Your task to perform on an android device: Go to battery settings Image 0: 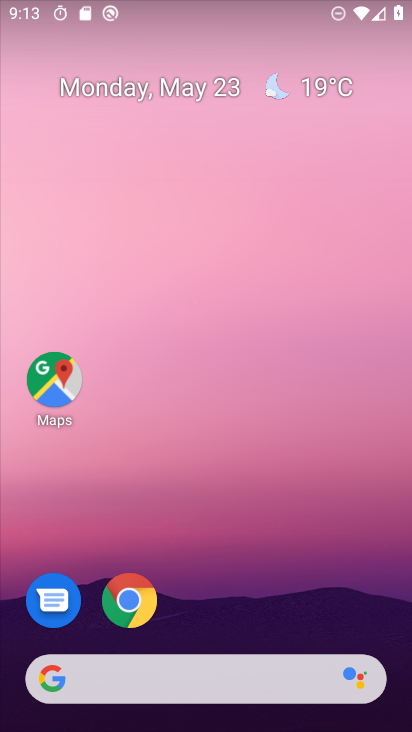
Step 0: press home button
Your task to perform on an android device: Go to battery settings Image 1: 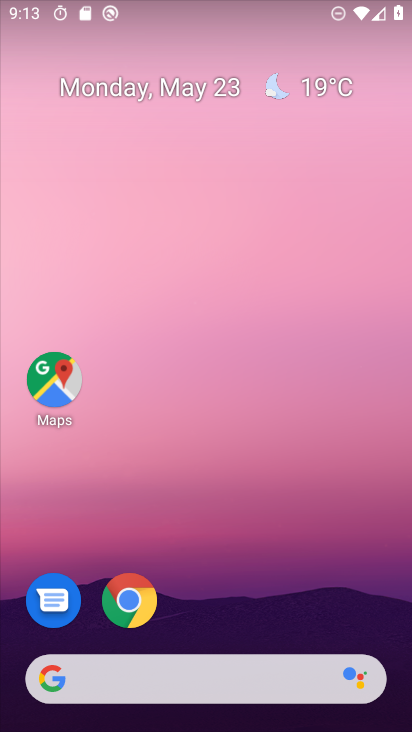
Step 1: drag from (22, 651) to (264, 82)
Your task to perform on an android device: Go to battery settings Image 2: 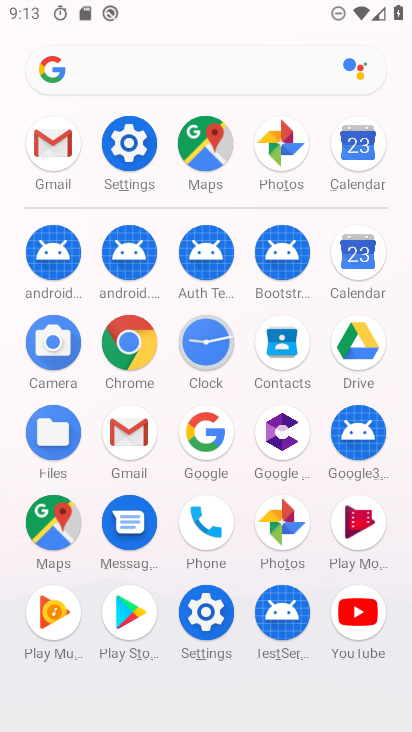
Step 2: click (140, 140)
Your task to perform on an android device: Go to battery settings Image 3: 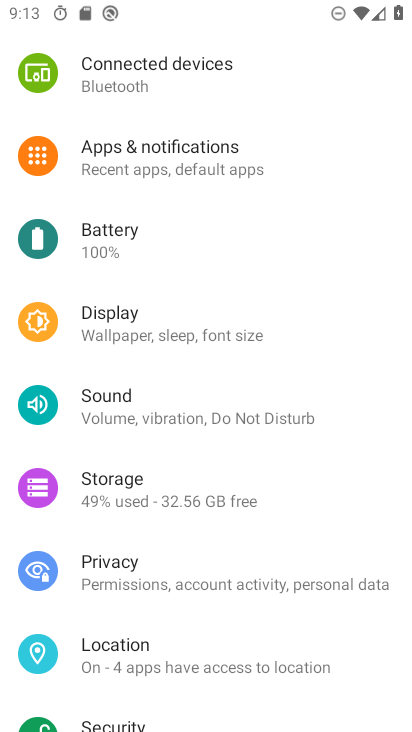
Step 3: click (94, 253)
Your task to perform on an android device: Go to battery settings Image 4: 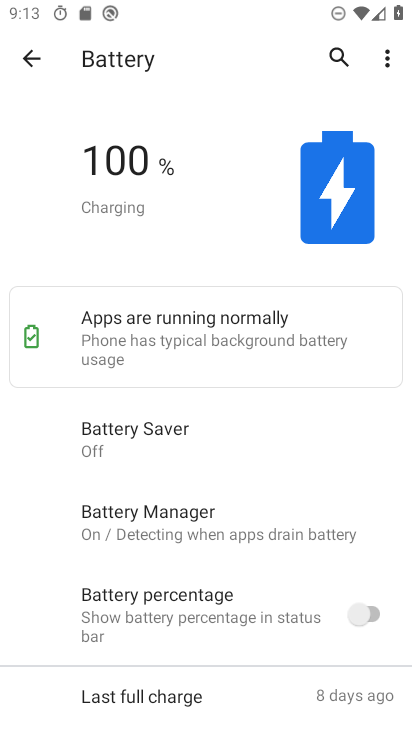
Step 4: task complete